Your task to perform on an android device: turn pop-ups on in chrome Image 0: 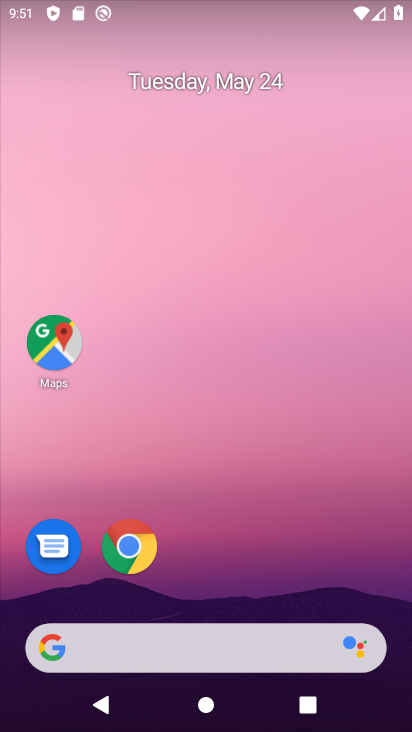
Step 0: drag from (240, 605) to (235, 5)
Your task to perform on an android device: turn pop-ups on in chrome Image 1: 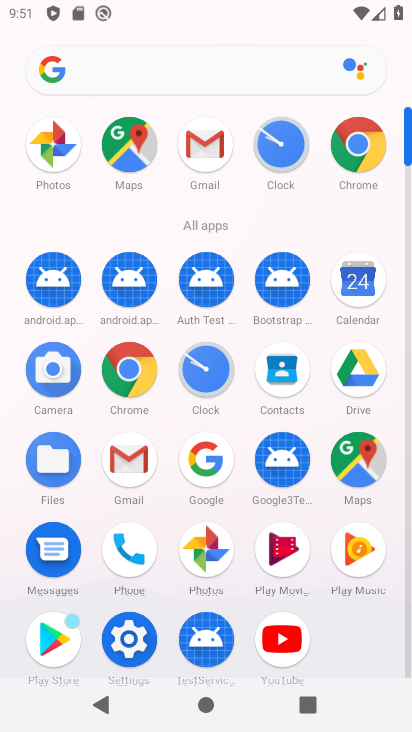
Step 1: click (351, 131)
Your task to perform on an android device: turn pop-ups on in chrome Image 2: 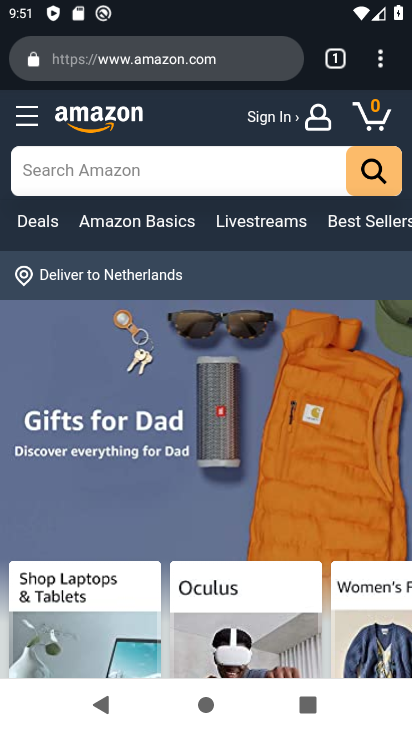
Step 2: click (385, 68)
Your task to perform on an android device: turn pop-ups on in chrome Image 3: 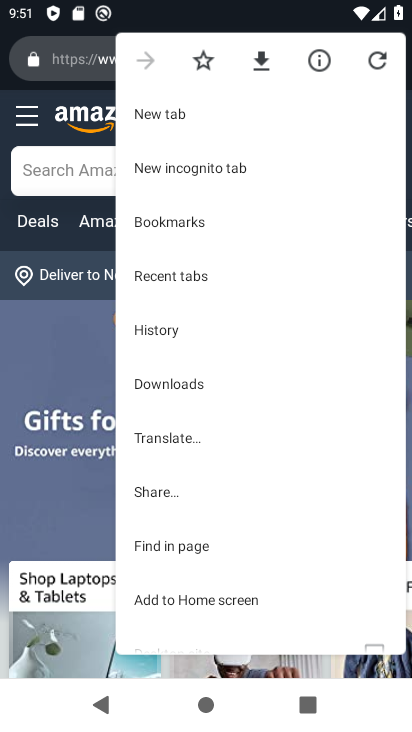
Step 3: drag from (212, 579) to (160, 69)
Your task to perform on an android device: turn pop-ups on in chrome Image 4: 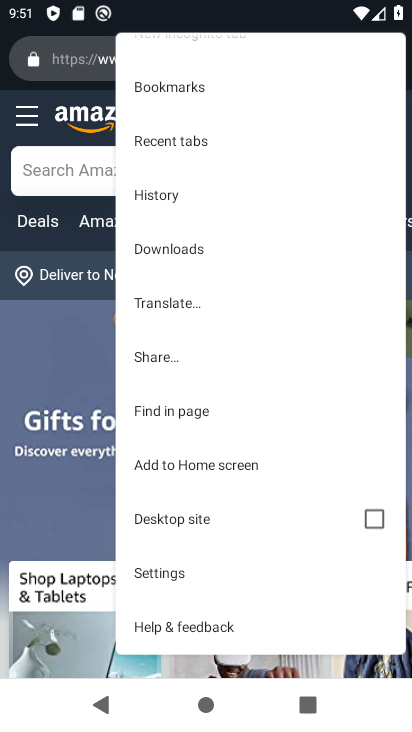
Step 4: click (171, 569)
Your task to perform on an android device: turn pop-ups on in chrome Image 5: 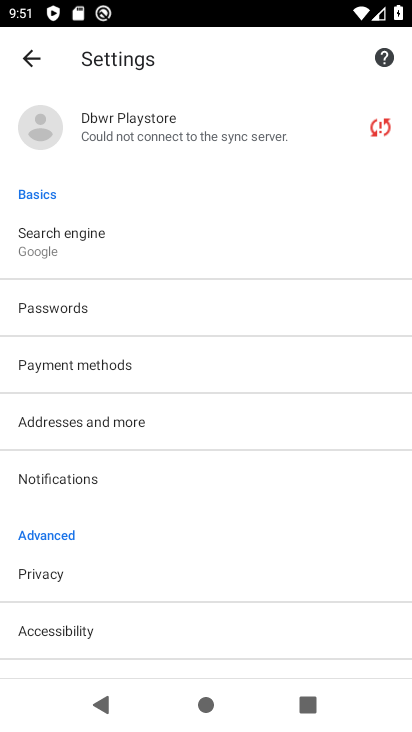
Step 5: drag from (162, 644) to (108, 168)
Your task to perform on an android device: turn pop-ups on in chrome Image 6: 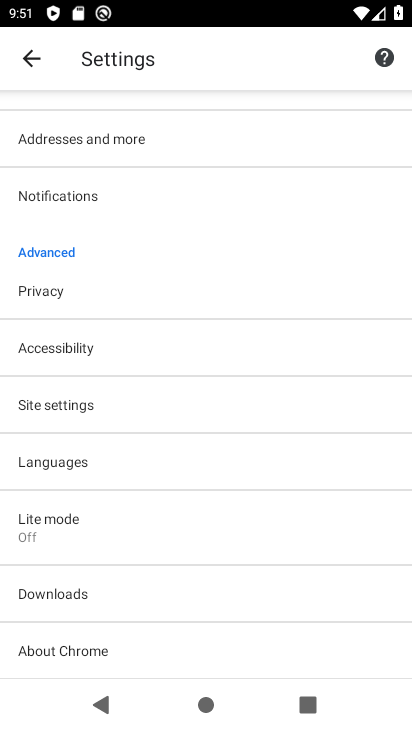
Step 6: click (117, 418)
Your task to perform on an android device: turn pop-ups on in chrome Image 7: 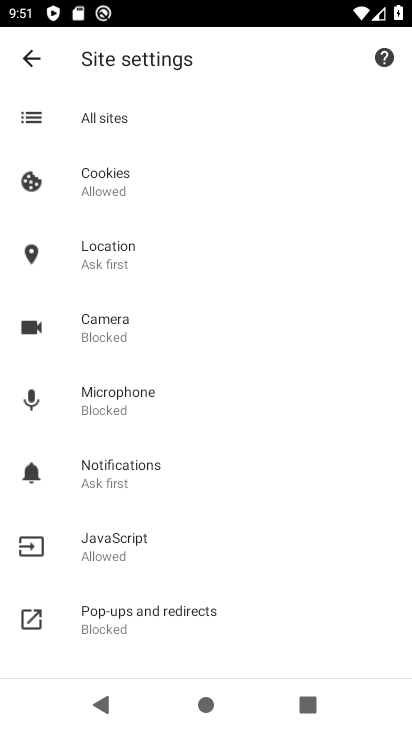
Step 7: click (158, 621)
Your task to perform on an android device: turn pop-ups on in chrome Image 8: 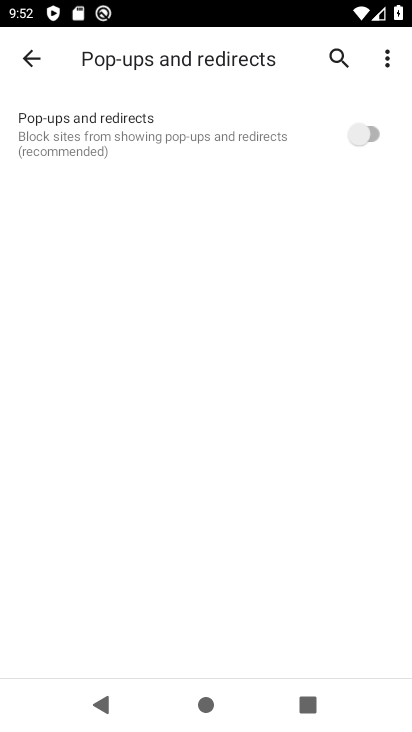
Step 8: click (367, 138)
Your task to perform on an android device: turn pop-ups on in chrome Image 9: 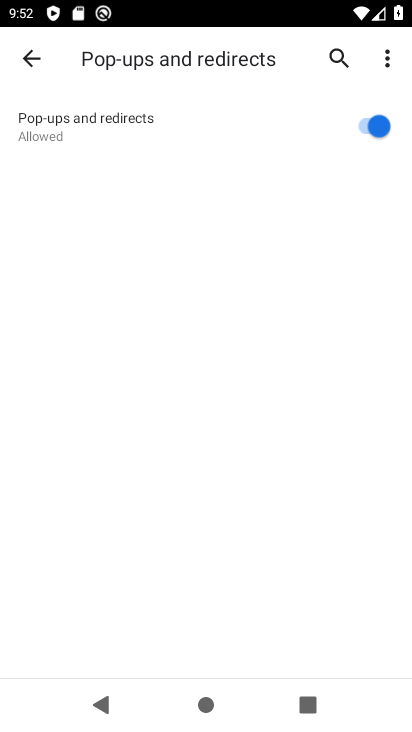
Step 9: task complete